Your task to perform on an android device: stop showing notifications on the lock screen Image 0: 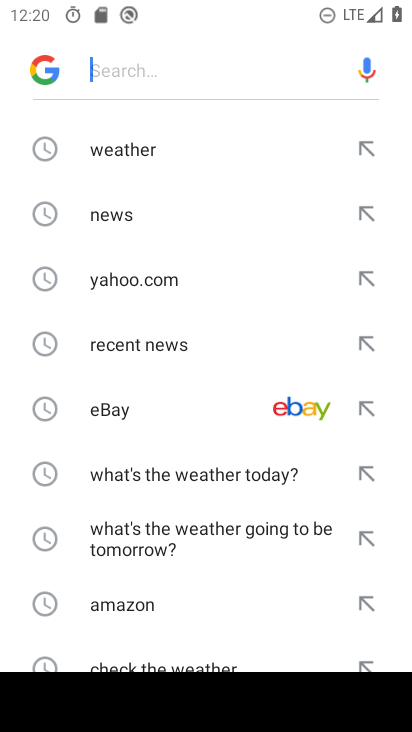
Step 0: drag from (241, 577) to (283, 56)
Your task to perform on an android device: stop showing notifications on the lock screen Image 1: 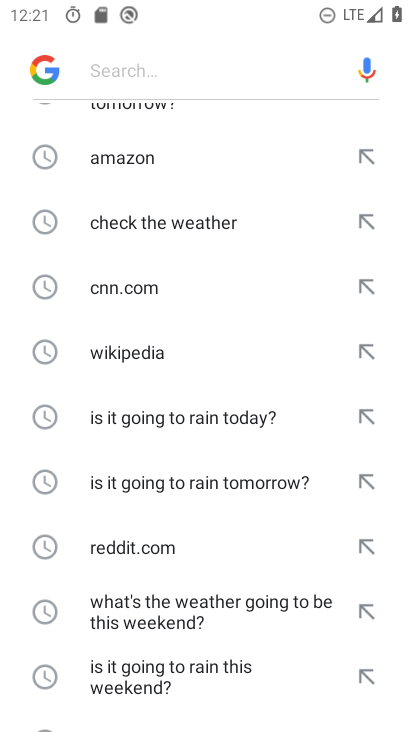
Step 1: drag from (236, 137) to (226, 630)
Your task to perform on an android device: stop showing notifications on the lock screen Image 2: 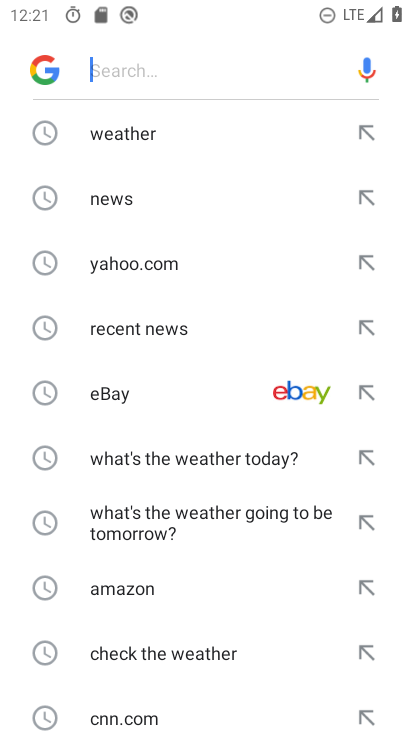
Step 2: drag from (231, 524) to (305, 153)
Your task to perform on an android device: stop showing notifications on the lock screen Image 3: 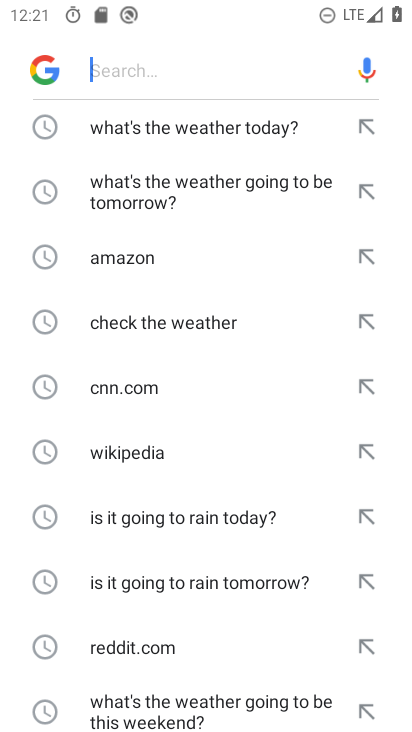
Step 3: drag from (259, 667) to (319, 266)
Your task to perform on an android device: stop showing notifications on the lock screen Image 4: 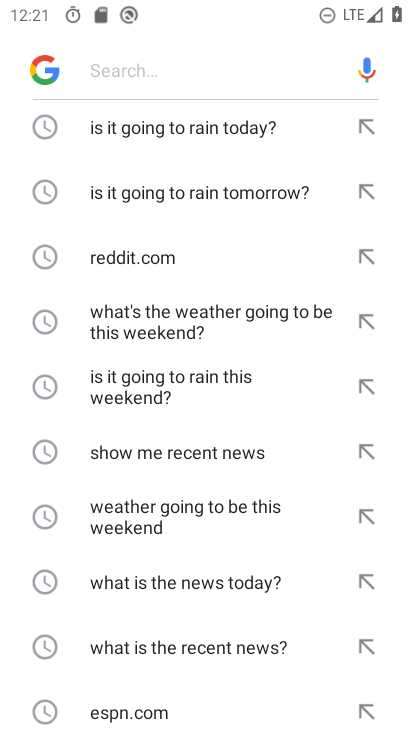
Step 4: drag from (199, 655) to (199, 424)
Your task to perform on an android device: stop showing notifications on the lock screen Image 5: 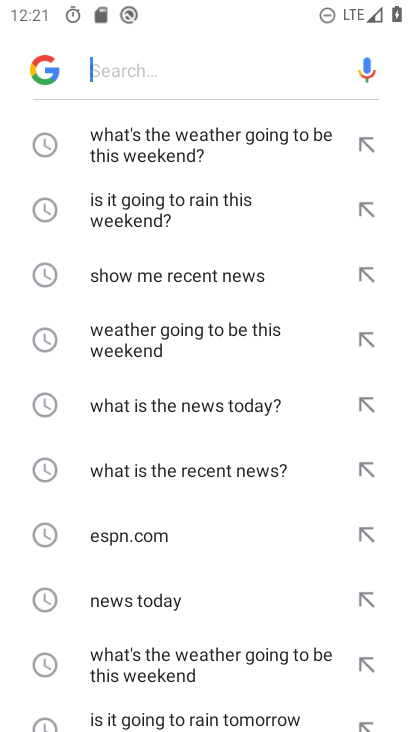
Step 5: drag from (228, 168) to (294, 729)
Your task to perform on an android device: stop showing notifications on the lock screen Image 6: 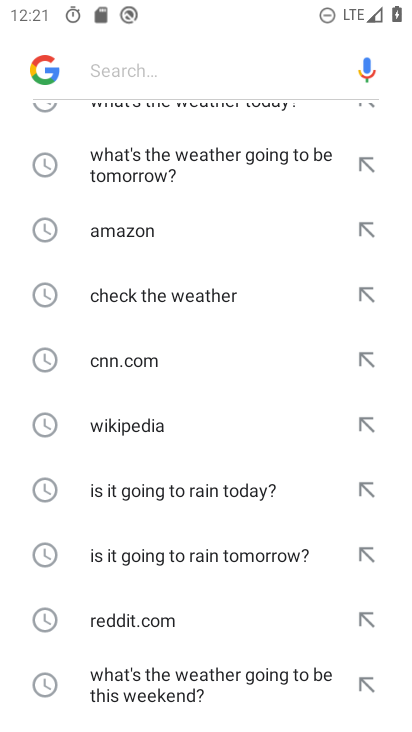
Step 6: drag from (157, 286) to (222, 658)
Your task to perform on an android device: stop showing notifications on the lock screen Image 7: 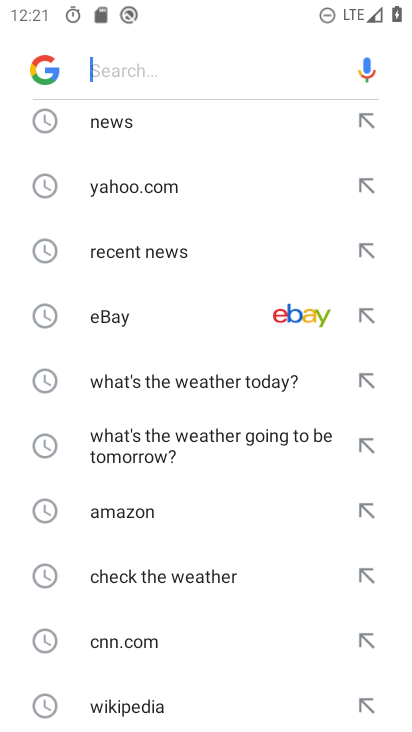
Step 7: drag from (201, 259) to (226, 730)
Your task to perform on an android device: stop showing notifications on the lock screen Image 8: 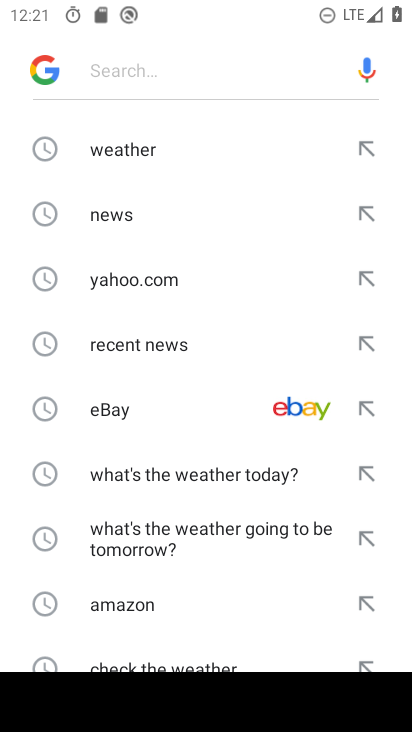
Step 8: drag from (159, 226) to (305, 646)
Your task to perform on an android device: stop showing notifications on the lock screen Image 9: 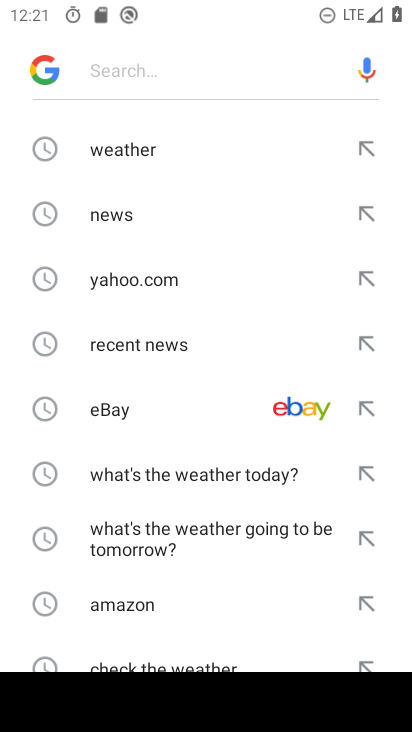
Step 9: press home button
Your task to perform on an android device: stop showing notifications on the lock screen Image 10: 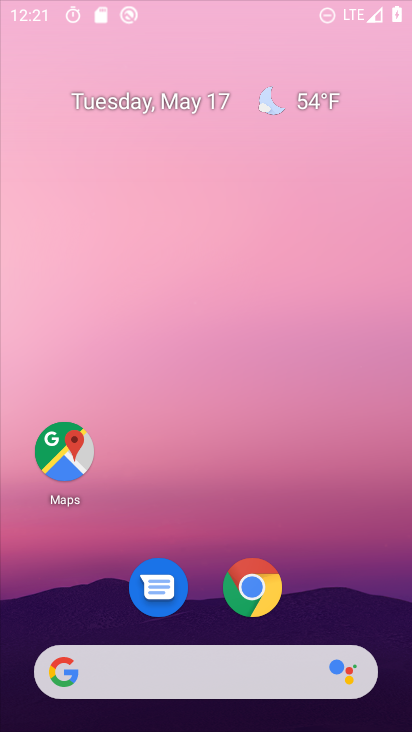
Step 10: drag from (181, 588) to (252, 138)
Your task to perform on an android device: stop showing notifications on the lock screen Image 11: 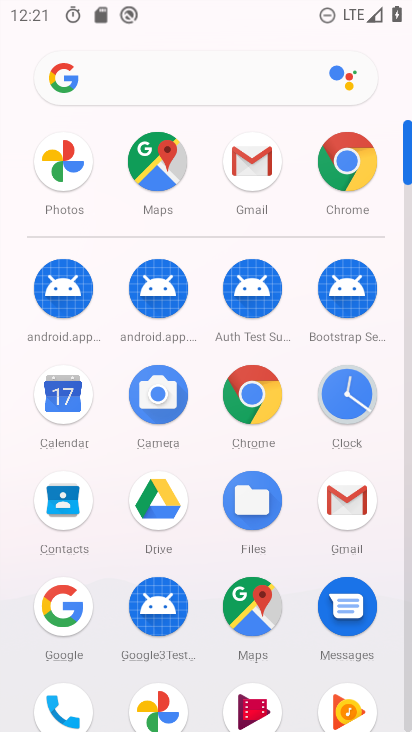
Step 11: drag from (216, 655) to (208, 293)
Your task to perform on an android device: stop showing notifications on the lock screen Image 12: 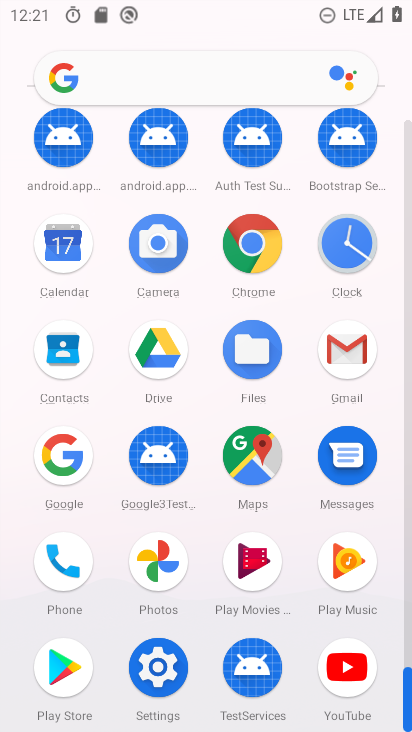
Step 12: drag from (196, 597) to (215, 165)
Your task to perform on an android device: stop showing notifications on the lock screen Image 13: 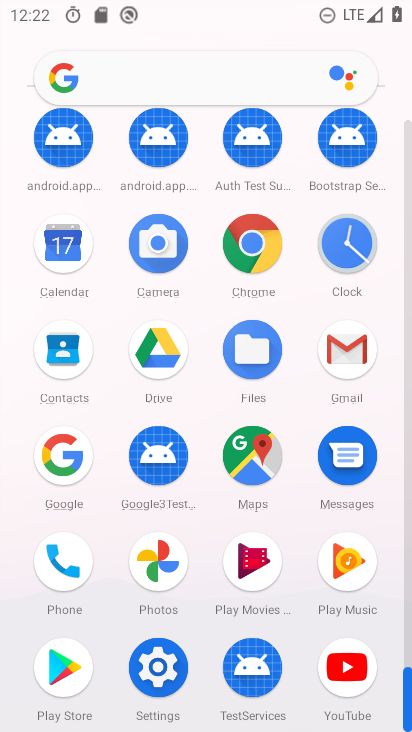
Step 13: click (161, 665)
Your task to perform on an android device: stop showing notifications on the lock screen Image 14: 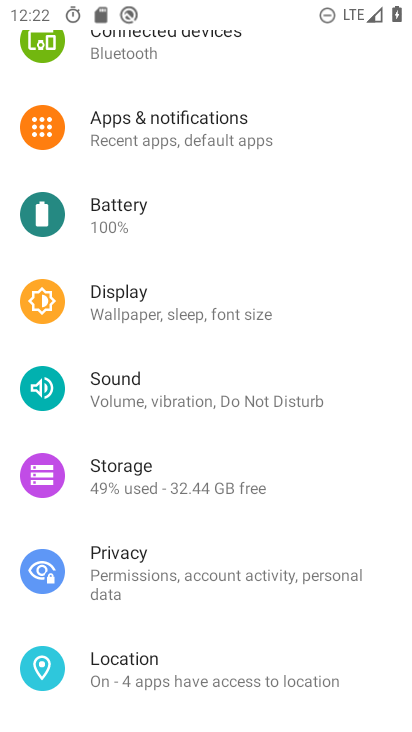
Step 14: drag from (147, 175) to (185, 731)
Your task to perform on an android device: stop showing notifications on the lock screen Image 15: 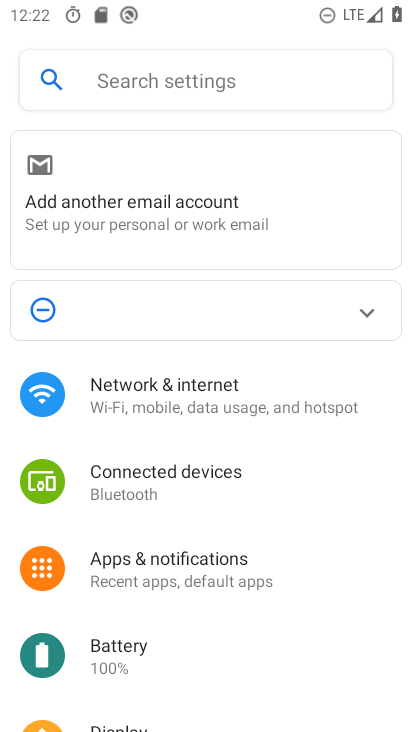
Step 15: drag from (197, 591) to (213, 291)
Your task to perform on an android device: stop showing notifications on the lock screen Image 16: 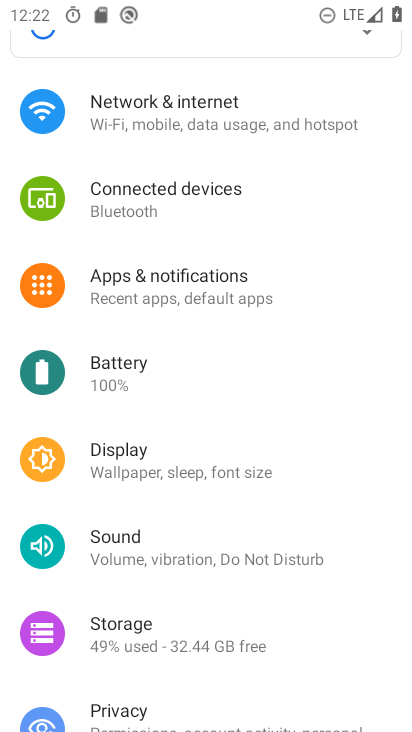
Step 16: click (213, 299)
Your task to perform on an android device: stop showing notifications on the lock screen Image 17: 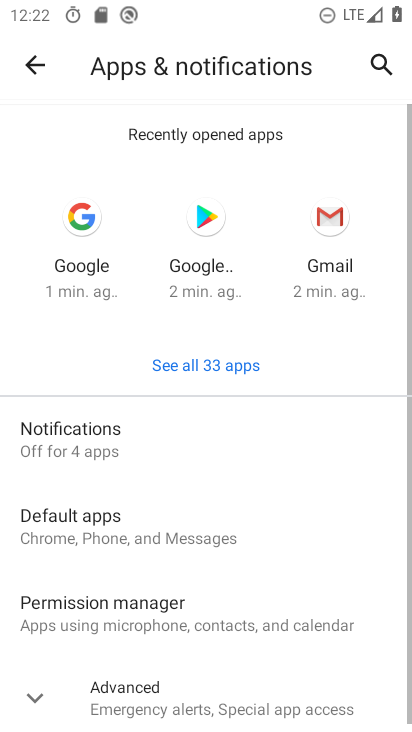
Step 17: click (139, 426)
Your task to perform on an android device: stop showing notifications on the lock screen Image 18: 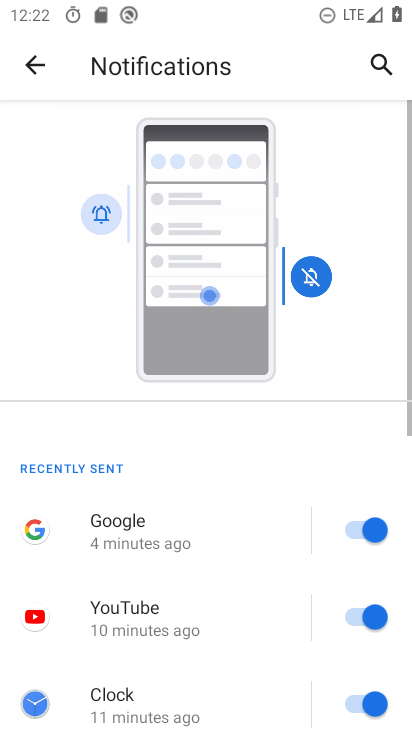
Step 18: drag from (210, 634) to (241, 193)
Your task to perform on an android device: stop showing notifications on the lock screen Image 19: 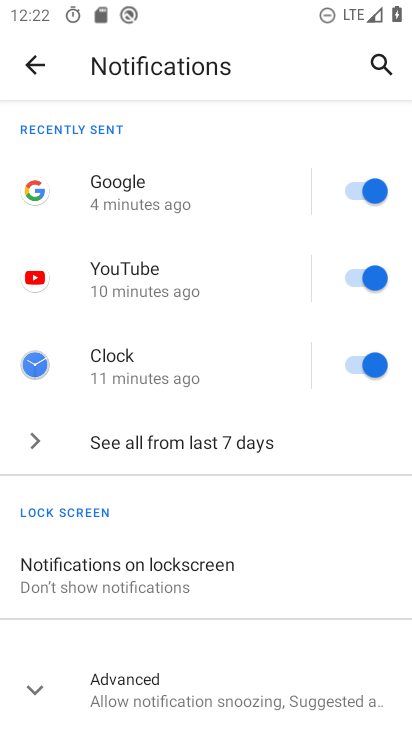
Step 19: drag from (223, 541) to (227, 223)
Your task to perform on an android device: stop showing notifications on the lock screen Image 20: 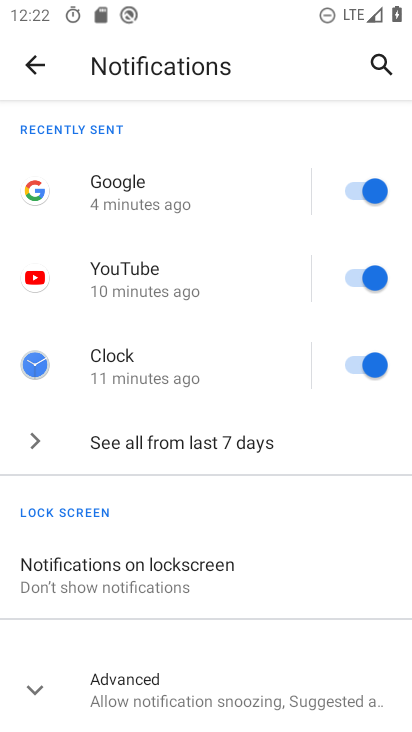
Step 20: drag from (176, 627) to (189, 209)
Your task to perform on an android device: stop showing notifications on the lock screen Image 21: 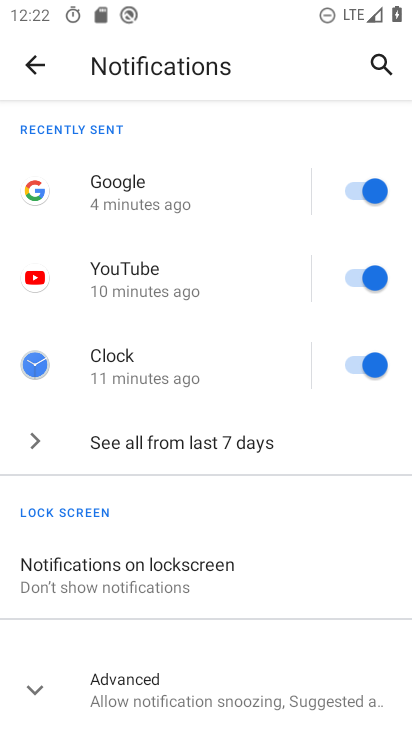
Step 21: drag from (195, 585) to (214, 222)
Your task to perform on an android device: stop showing notifications on the lock screen Image 22: 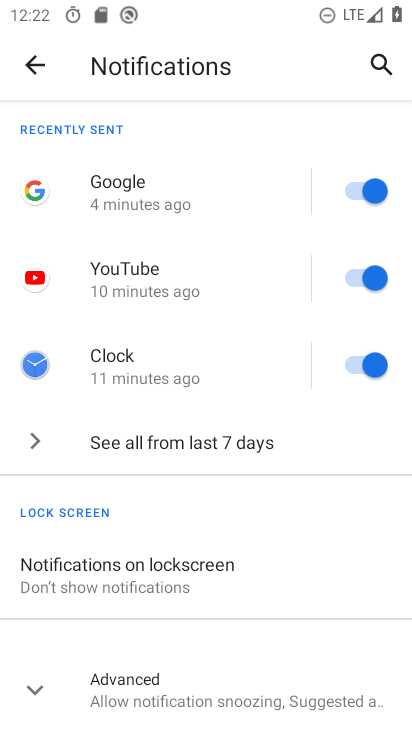
Step 22: click (168, 570)
Your task to perform on an android device: stop showing notifications on the lock screen Image 23: 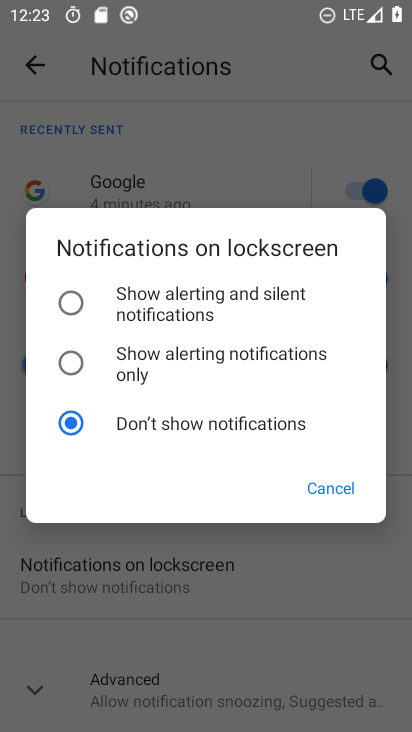
Step 23: click (184, 421)
Your task to perform on an android device: stop showing notifications on the lock screen Image 24: 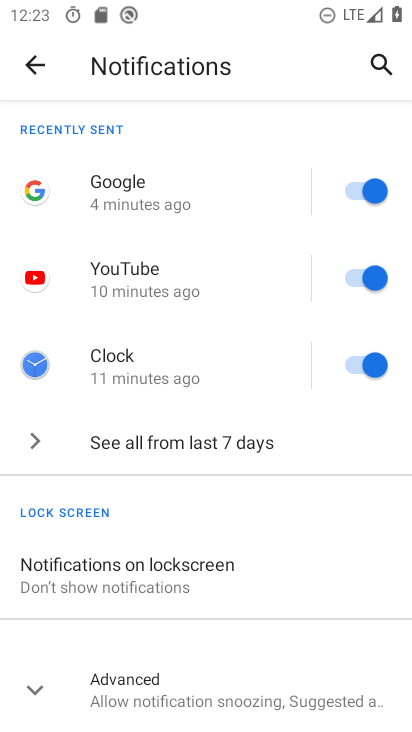
Step 24: click (199, 574)
Your task to perform on an android device: stop showing notifications on the lock screen Image 25: 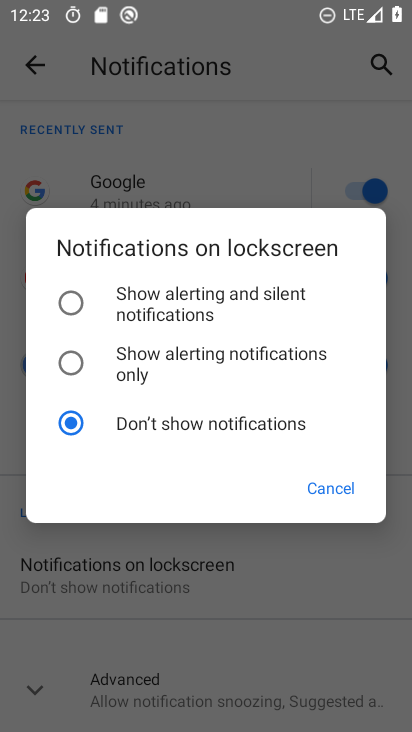
Step 25: task complete